Your task to perform on an android device: Open settings on Google Maps Image 0: 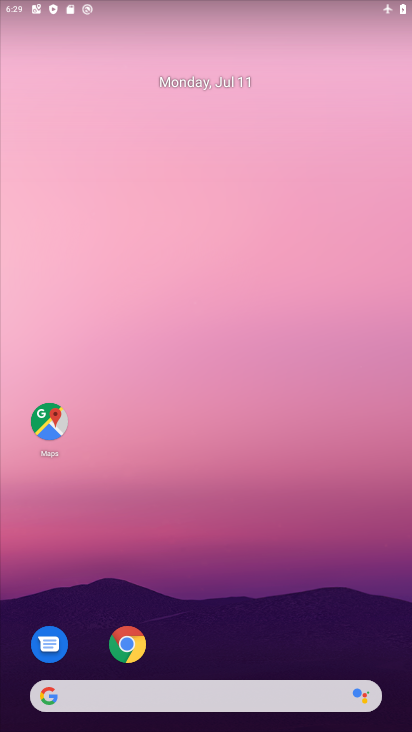
Step 0: drag from (268, 708) to (205, 65)
Your task to perform on an android device: Open settings on Google Maps Image 1: 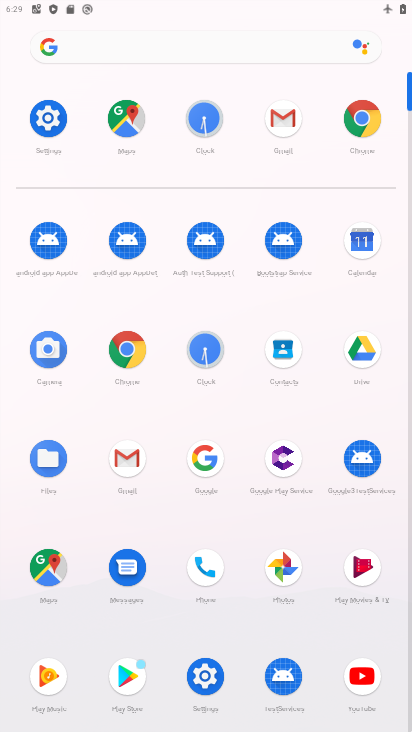
Step 1: click (38, 576)
Your task to perform on an android device: Open settings on Google Maps Image 2: 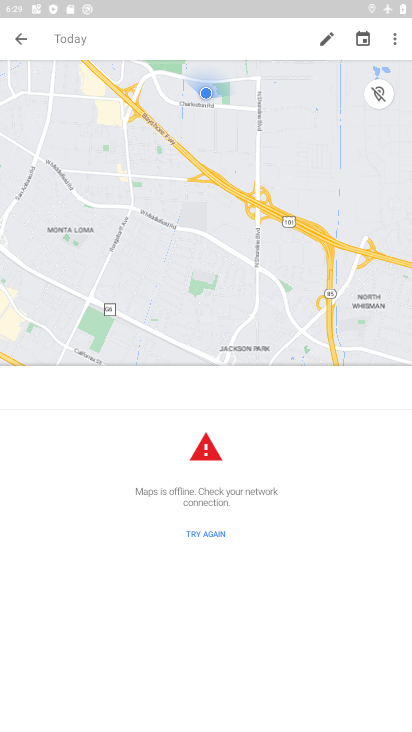
Step 2: press back button
Your task to perform on an android device: Open settings on Google Maps Image 3: 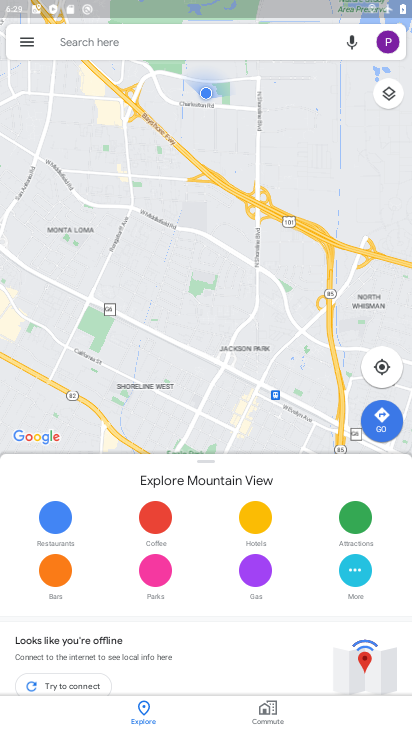
Step 3: click (29, 31)
Your task to perform on an android device: Open settings on Google Maps Image 4: 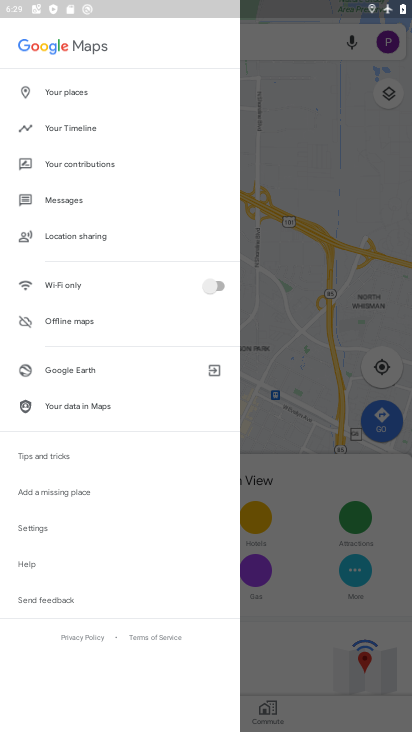
Step 4: click (74, 124)
Your task to perform on an android device: Open settings on Google Maps Image 5: 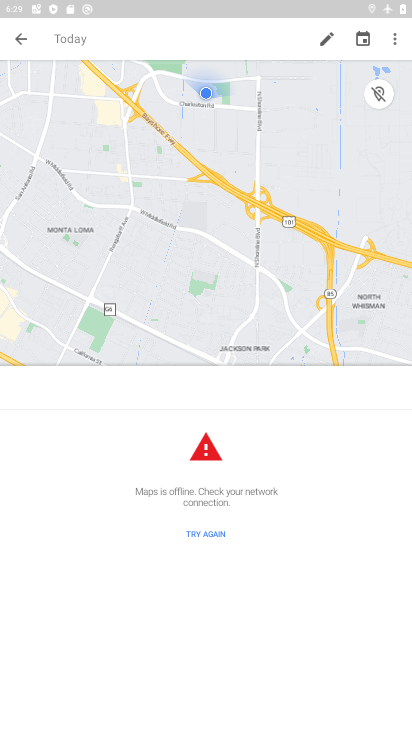
Step 5: click (393, 40)
Your task to perform on an android device: Open settings on Google Maps Image 6: 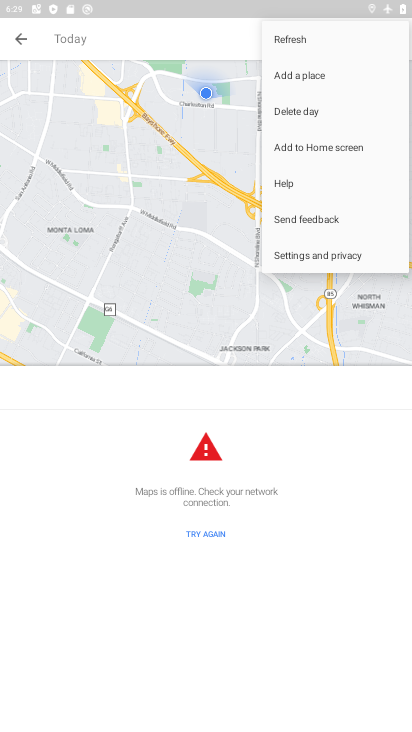
Step 6: click (312, 257)
Your task to perform on an android device: Open settings on Google Maps Image 7: 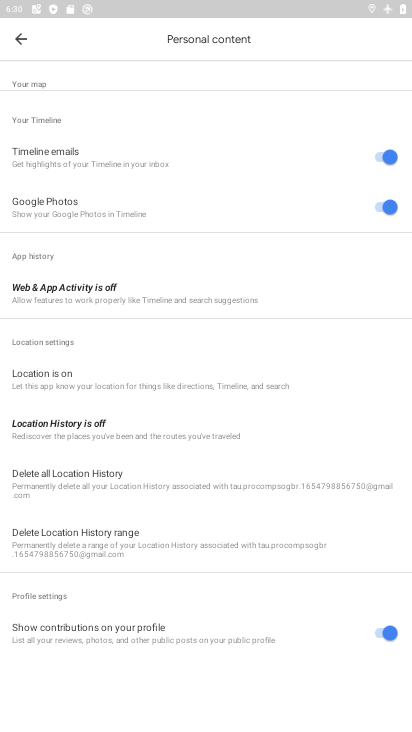
Step 7: task complete